Your task to perform on an android device: change text size in settings app Image 0: 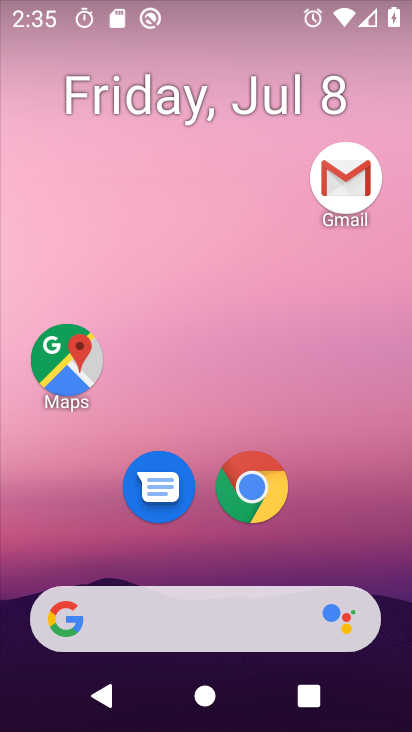
Step 0: drag from (345, 536) to (378, 149)
Your task to perform on an android device: change text size in settings app Image 1: 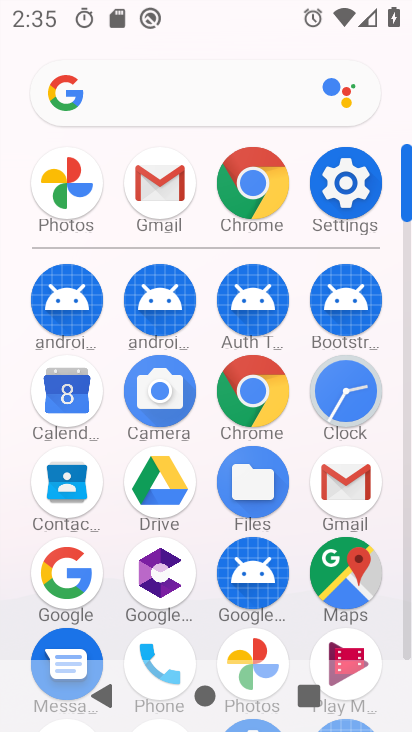
Step 1: click (365, 205)
Your task to perform on an android device: change text size in settings app Image 2: 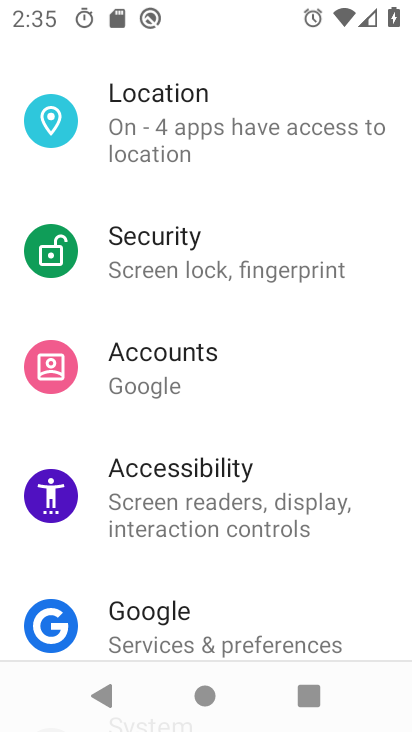
Step 2: drag from (335, 281) to (333, 424)
Your task to perform on an android device: change text size in settings app Image 3: 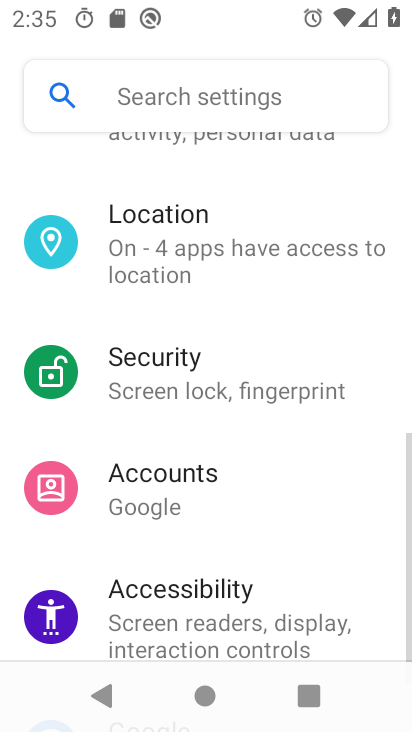
Step 3: drag from (343, 301) to (359, 448)
Your task to perform on an android device: change text size in settings app Image 4: 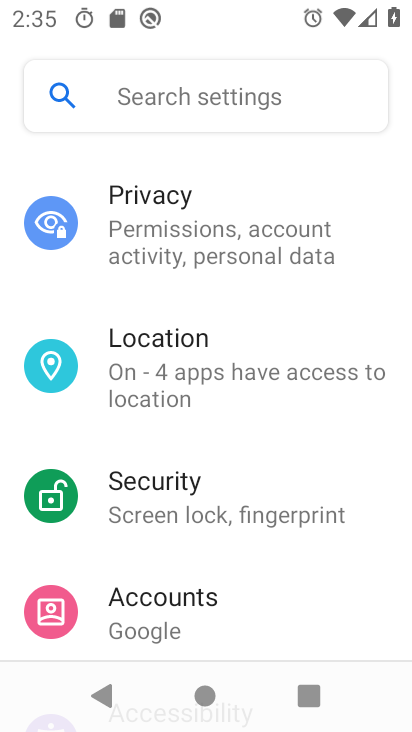
Step 4: drag from (349, 298) to (345, 418)
Your task to perform on an android device: change text size in settings app Image 5: 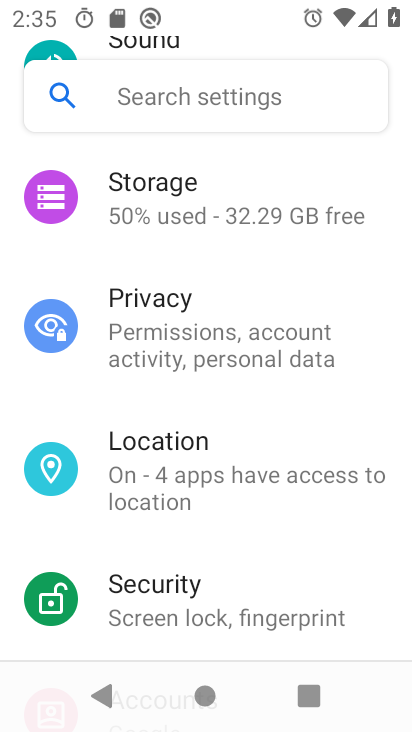
Step 5: drag from (360, 281) to (371, 413)
Your task to perform on an android device: change text size in settings app Image 6: 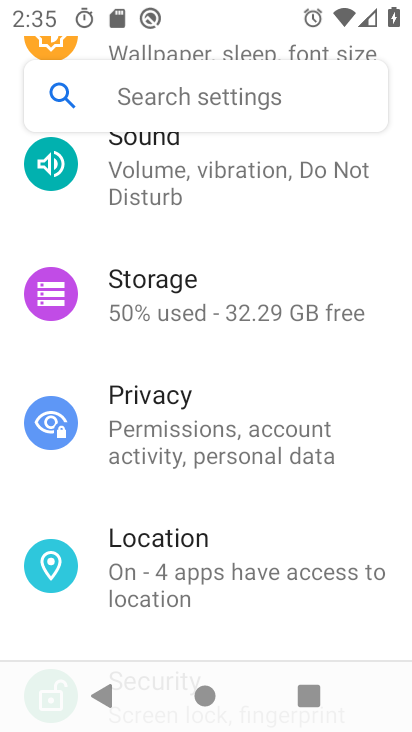
Step 6: drag from (365, 370) to (369, 513)
Your task to perform on an android device: change text size in settings app Image 7: 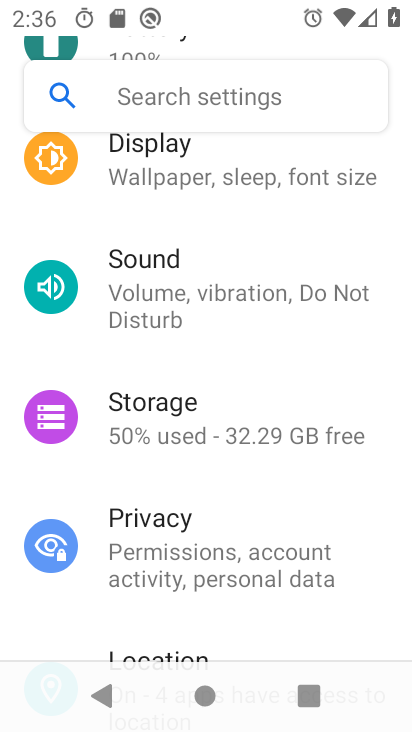
Step 7: drag from (351, 331) to (355, 519)
Your task to perform on an android device: change text size in settings app Image 8: 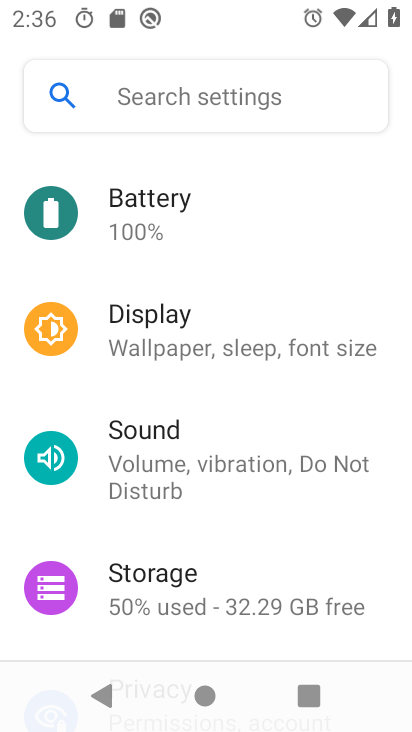
Step 8: drag from (353, 277) to (347, 449)
Your task to perform on an android device: change text size in settings app Image 9: 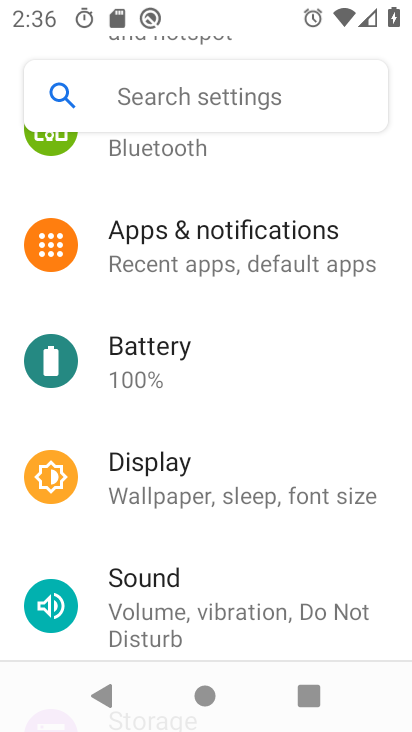
Step 9: drag from (342, 325) to (351, 471)
Your task to perform on an android device: change text size in settings app Image 10: 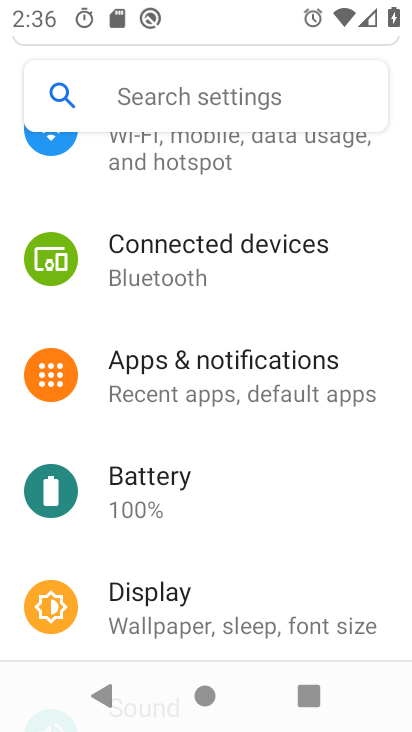
Step 10: drag from (371, 272) to (359, 461)
Your task to perform on an android device: change text size in settings app Image 11: 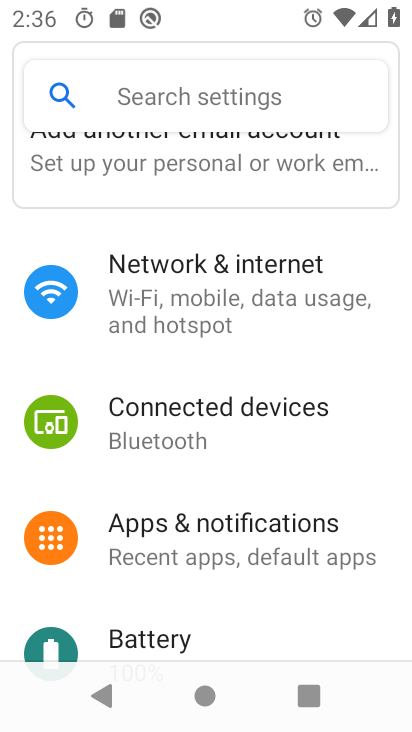
Step 11: drag from (368, 458) to (361, 314)
Your task to perform on an android device: change text size in settings app Image 12: 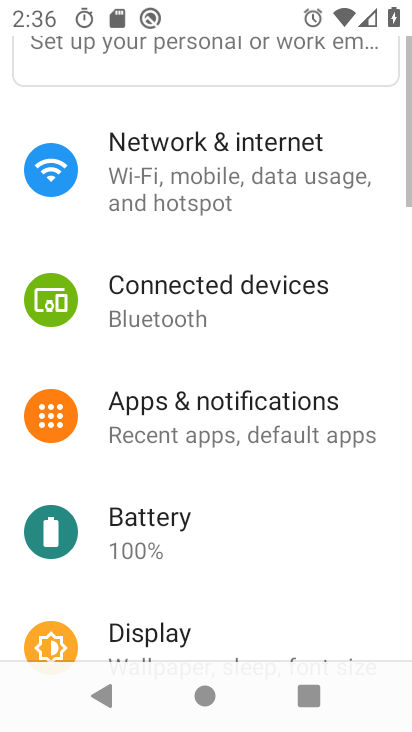
Step 12: drag from (342, 551) to (341, 323)
Your task to perform on an android device: change text size in settings app Image 13: 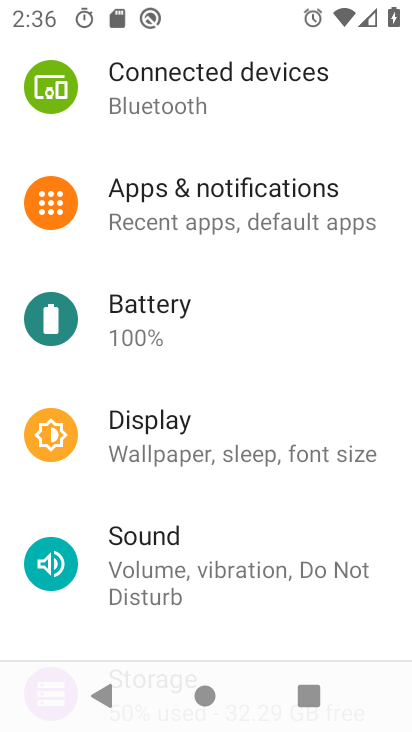
Step 13: click (291, 453)
Your task to perform on an android device: change text size in settings app Image 14: 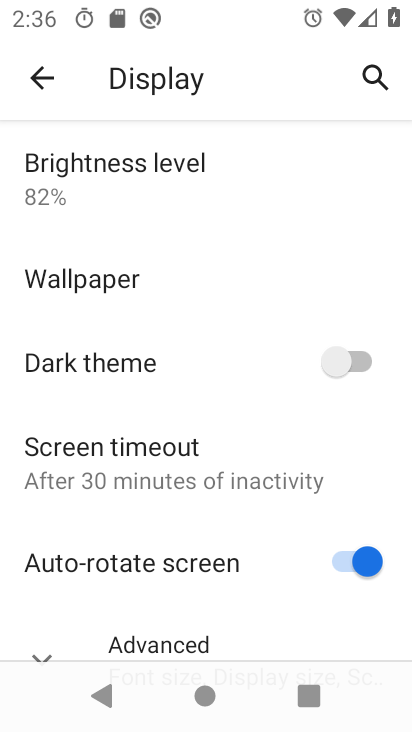
Step 14: drag from (288, 534) to (267, 344)
Your task to perform on an android device: change text size in settings app Image 15: 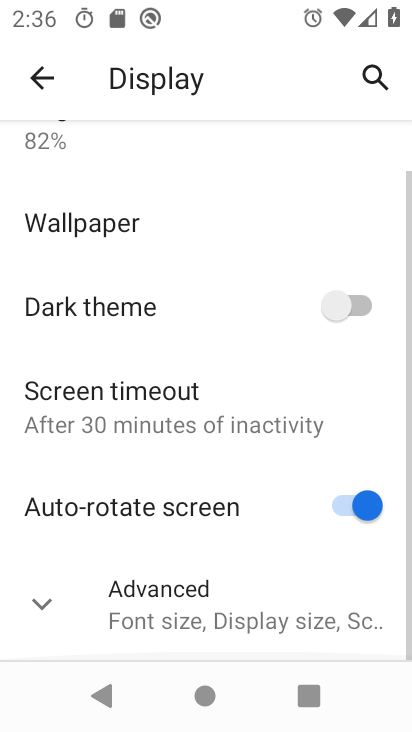
Step 15: click (249, 603)
Your task to perform on an android device: change text size in settings app Image 16: 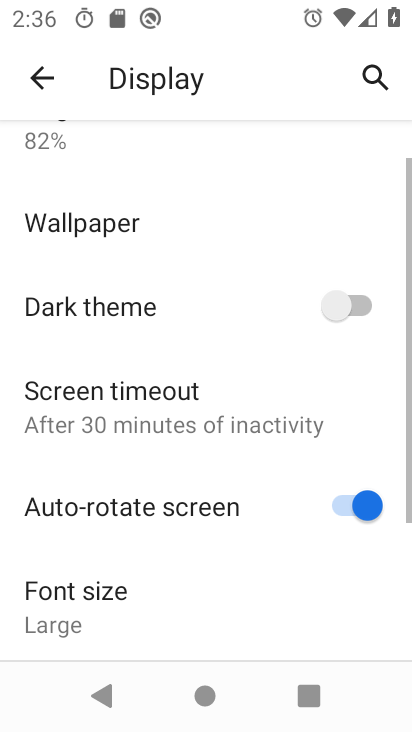
Step 16: drag from (288, 540) to (276, 336)
Your task to perform on an android device: change text size in settings app Image 17: 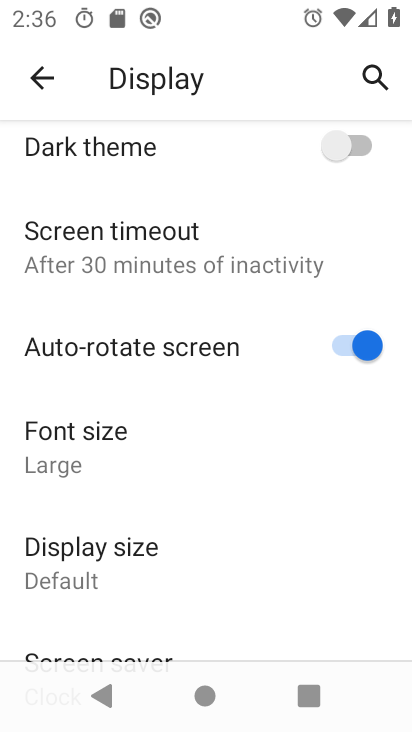
Step 17: click (112, 464)
Your task to perform on an android device: change text size in settings app Image 18: 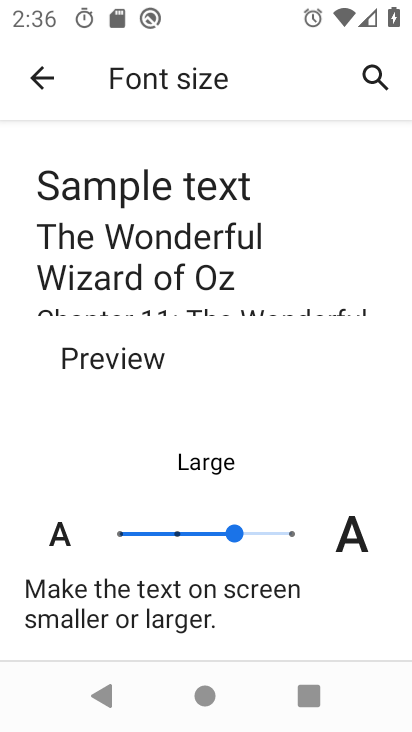
Step 18: click (289, 535)
Your task to perform on an android device: change text size in settings app Image 19: 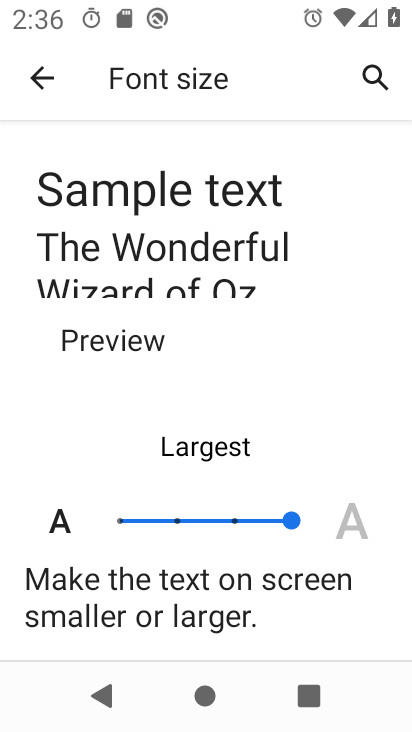
Step 19: task complete